Your task to perform on an android device: turn off location history Image 0: 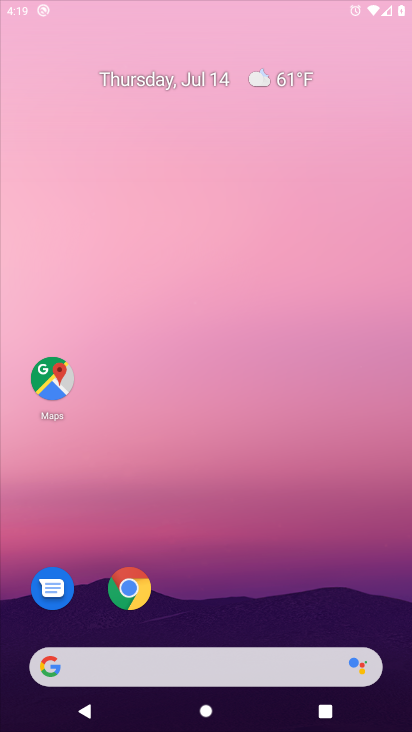
Step 0: press home button
Your task to perform on an android device: turn off location history Image 1: 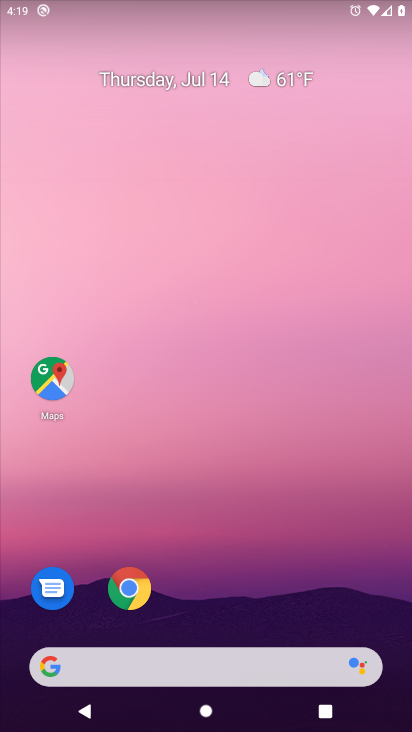
Step 1: drag from (209, 645) to (214, 92)
Your task to perform on an android device: turn off location history Image 2: 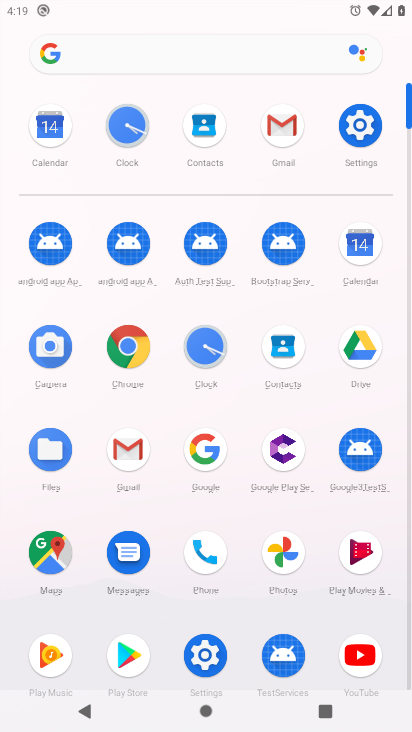
Step 2: click (370, 129)
Your task to perform on an android device: turn off location history Image 3: 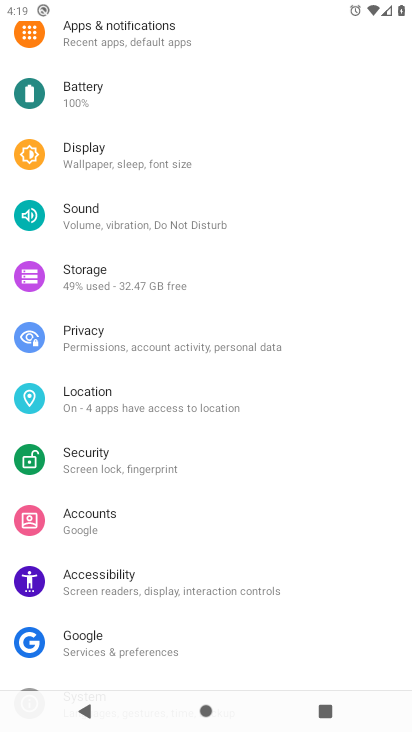
Step 3: click (87, 393)
Your task to perform on an android device: turn off location history Image 4: 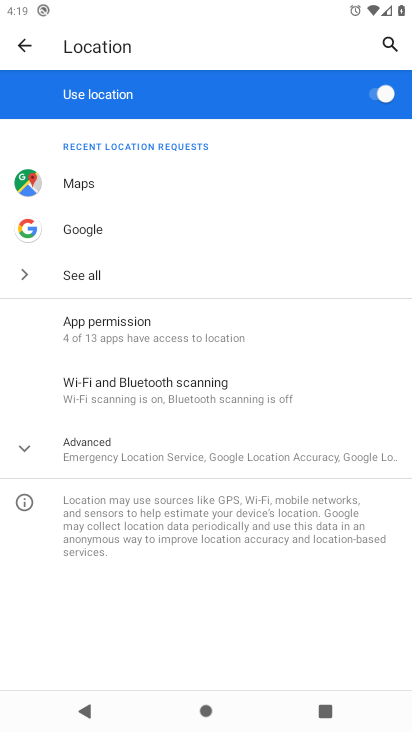
Step 4: click (103, 461)
Your task to perform on an android device: turn off location history Image 5: 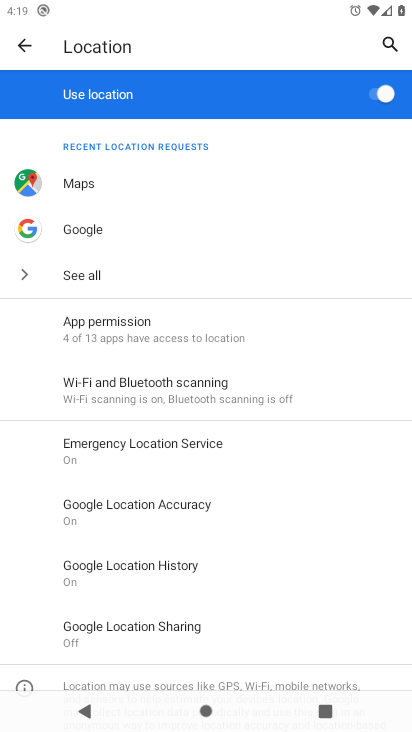
Step 5: drag from (294, 494) to (248, 160)
Your task to perform on an android device: turn off location history Image 6: 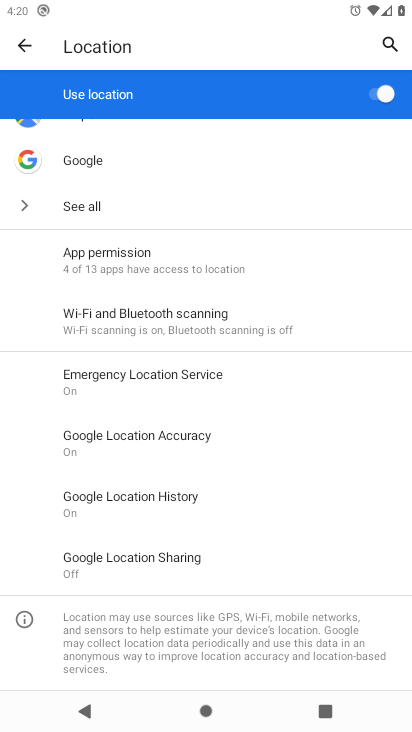
Step 6: click (141, 493)
Your task to perform on an android device: turn off location history Image 7: 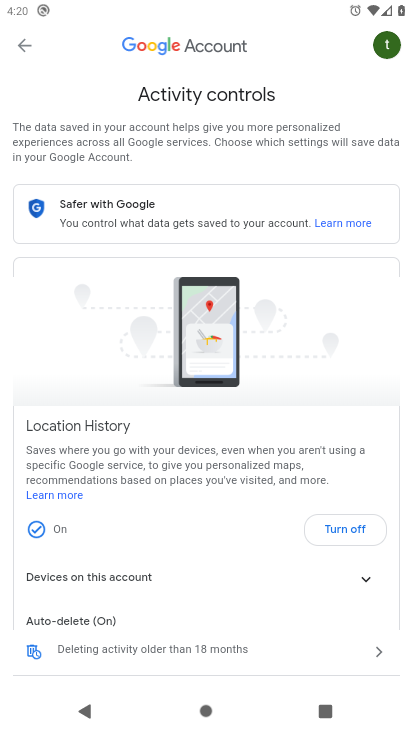
Step 7: click (340, 530)
Your task to perform on an android device: turn off location history Image 8: 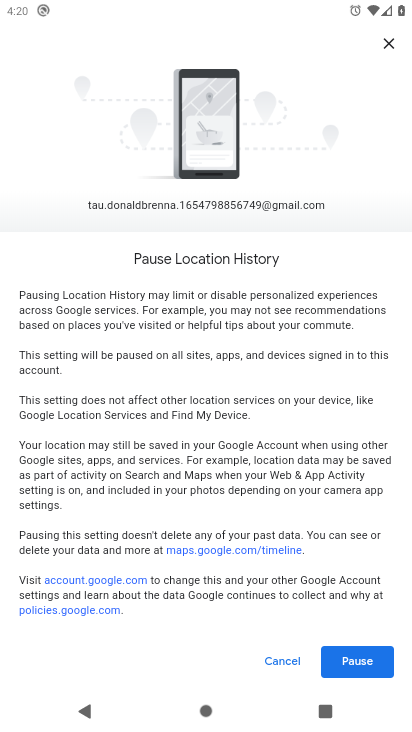
Step 8: click (359, 661)
Your task to perform on an android device: turn off location history Image 9: 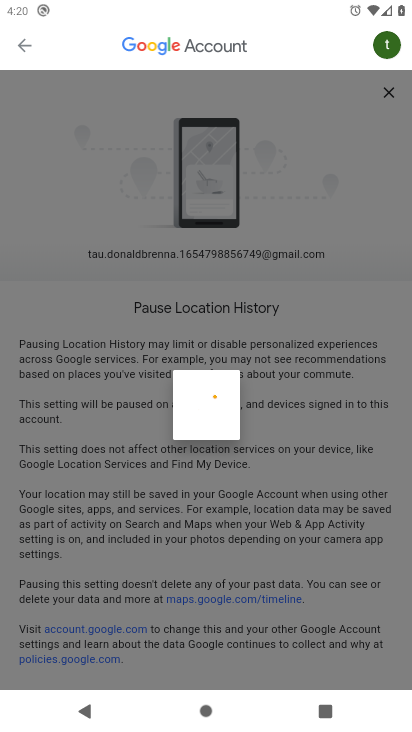
Step 9: click (359, 661)
Your task to perform on an android device: turn off location history Image 10: 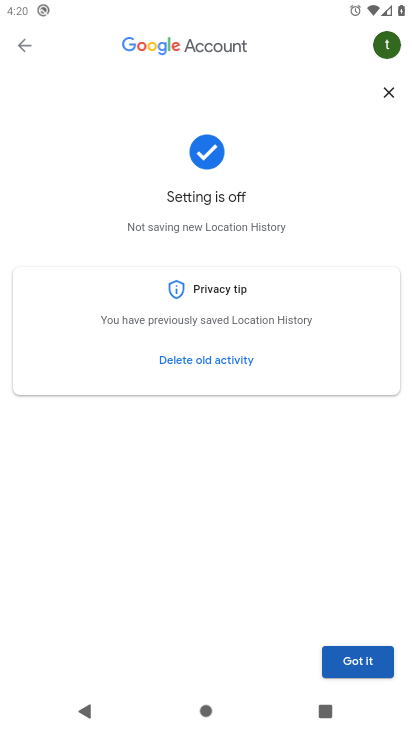
Step 10: click (359, 661)
Your task to perform on an android device: turn off location history Image 11: 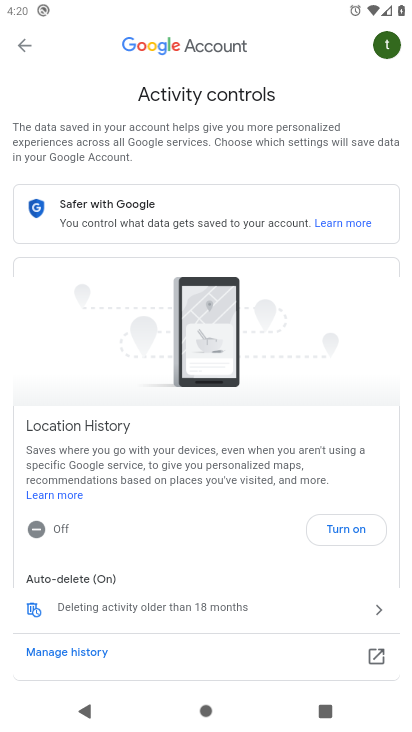
Step 11: task complete